Your task to perform on an android device: change text size in settings app Image 0: 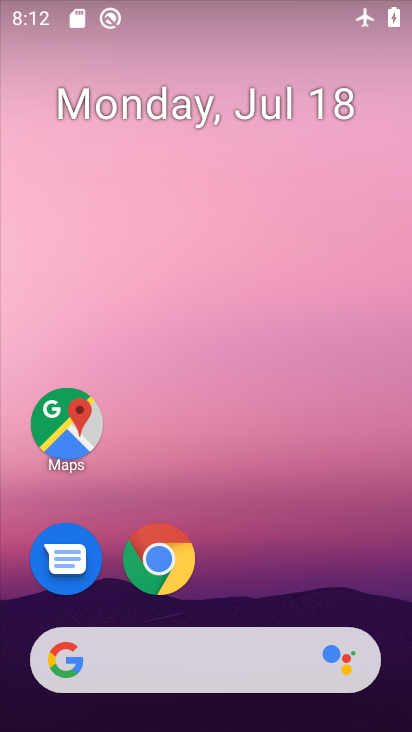
Step 0: drag from (296, 616) to (324, 129)
Your task to perform on an android device: change text size in settings app Image 1: 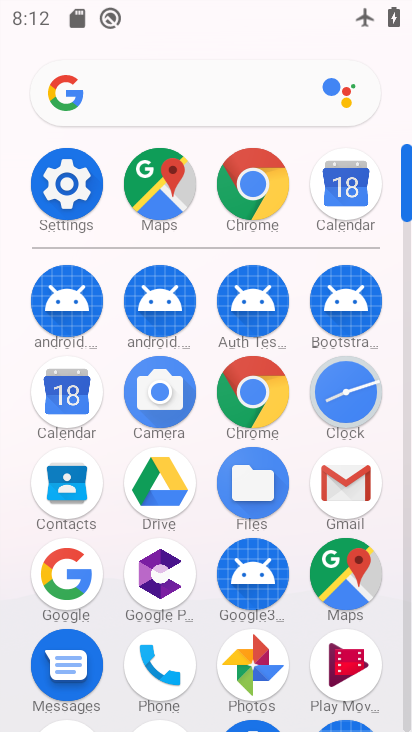
Step 1: click (77, 181)
Your task to perform on an android device: change text size in settings app Image 2: 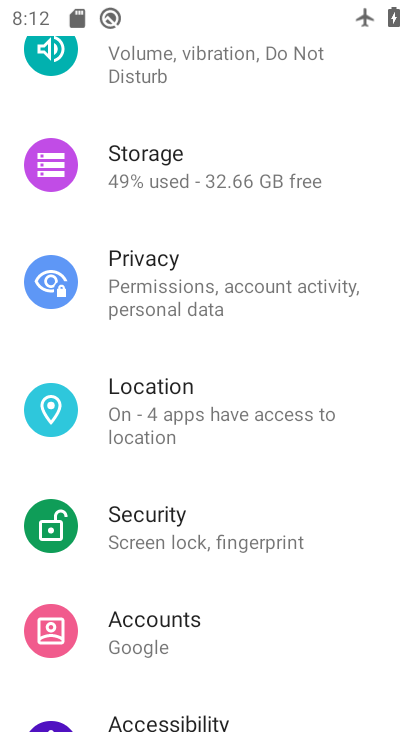
Step 2: drag from (330, 520) to (340, 416)
Your task to perform on an android device: change text size in settings app Image 3: 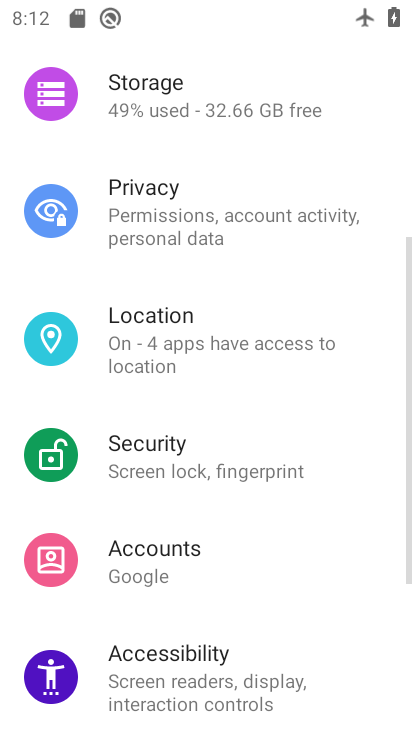
Step 3: drag from (323, 542) to (324, 411)
Your task to perform on an android device: change text size in settings app Image 4: 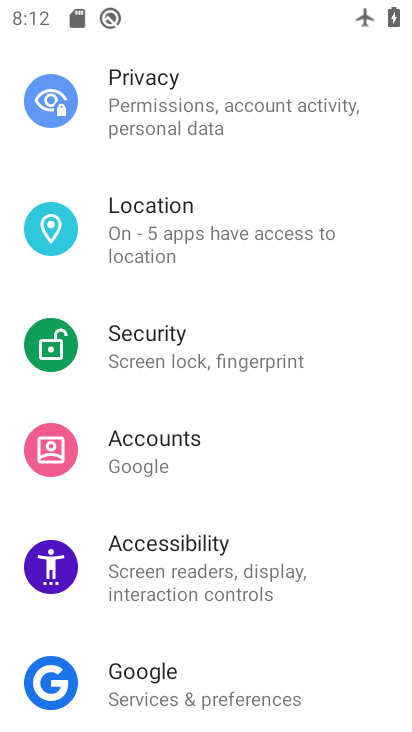
Step 4: drag from (334, 554) to (347, 431)
Your task to perform on an android device: change text size in settings app Image 5: 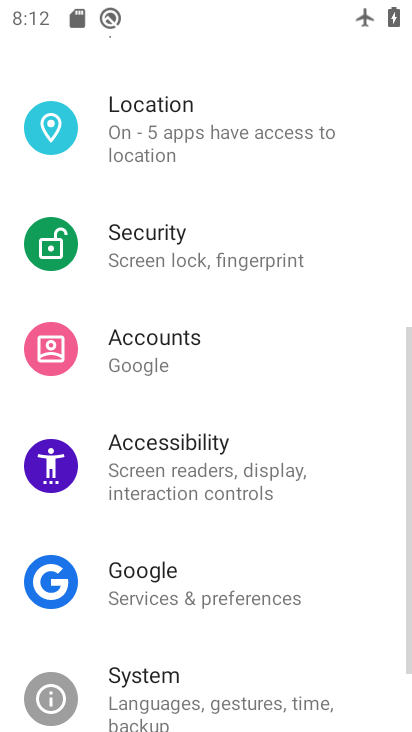
Step 5: drag from (356, 587) to (358, 416)
Your task to perform on an android device: change text size in settings app Image 6: 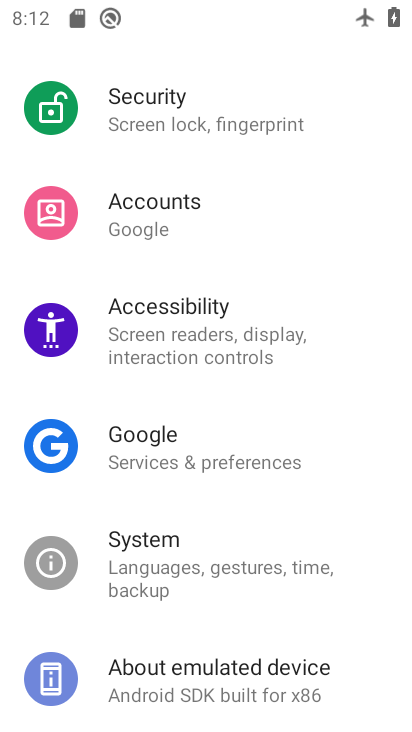
Step 6: drag from (367, 311) to (361, 431)
Your task to perform on an android device: change text size in settings app Image 7: 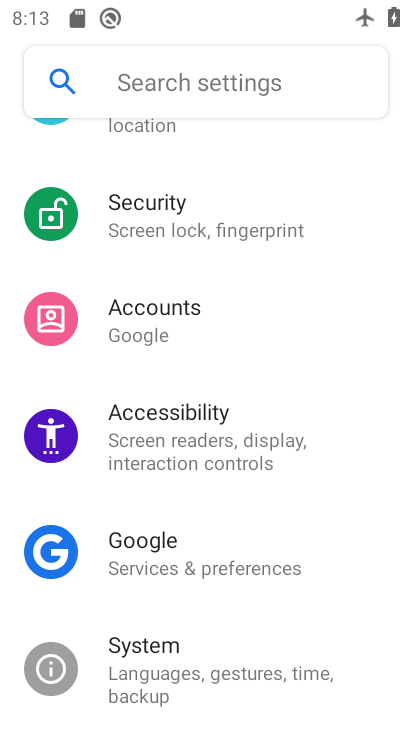
Step 7: drag from (345, 249) to (366, 363)
Your task to perform on an android device: change text size in settings app Image 8: 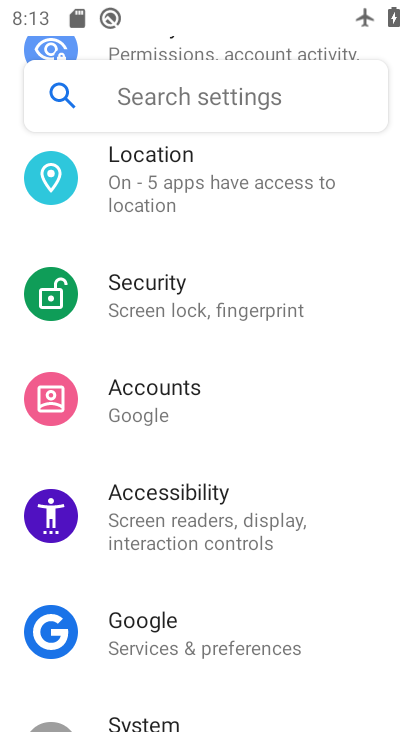
Step 8: drag from (363, 279) to (373, 390)
Your task to perform on an android device: change text size in settings app Image 9: 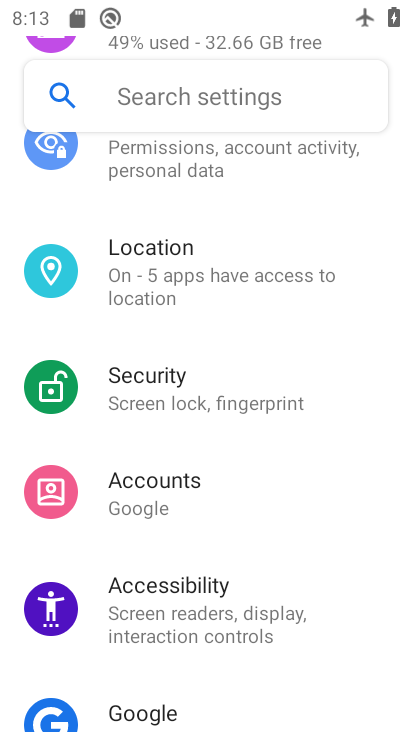
Step 9: drag from (371, 298) to (371, 385)
Your task to perform on an android device: change text size in settings app Image 10: 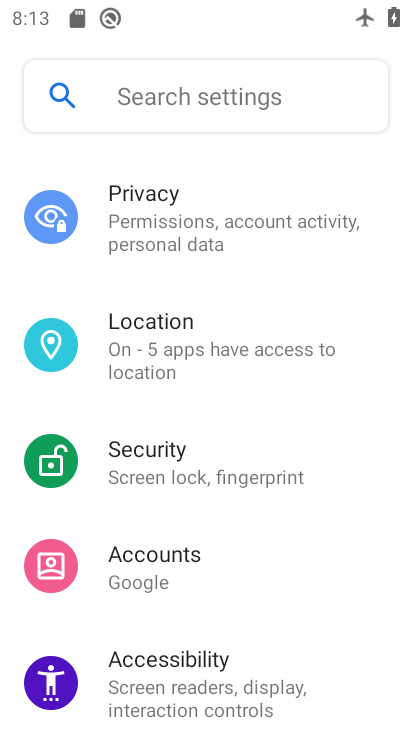
Step 10: drag from (361, 298) to (358, 385)
Your task to perform on an android device: change text size in settings app Image 11: 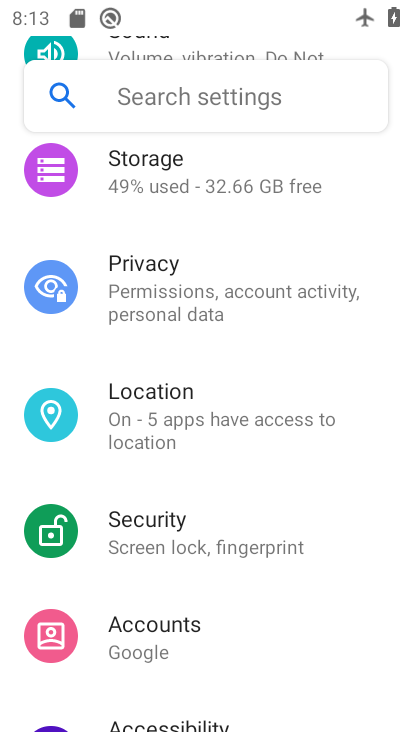
Step 11: drag from (371, 289) to (365, 381)
Your task to perform on an android device: change text size in settings app Image 12: 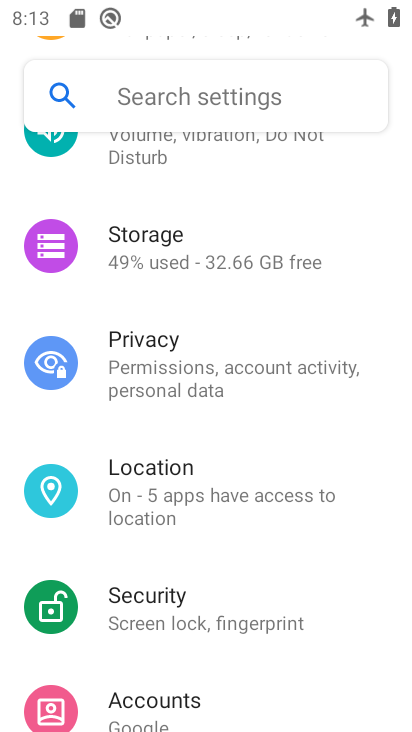
Step 12: drag from (367, 303) to (362, 414)
Your task to perform on an android device: change text size in settings app Image 13: 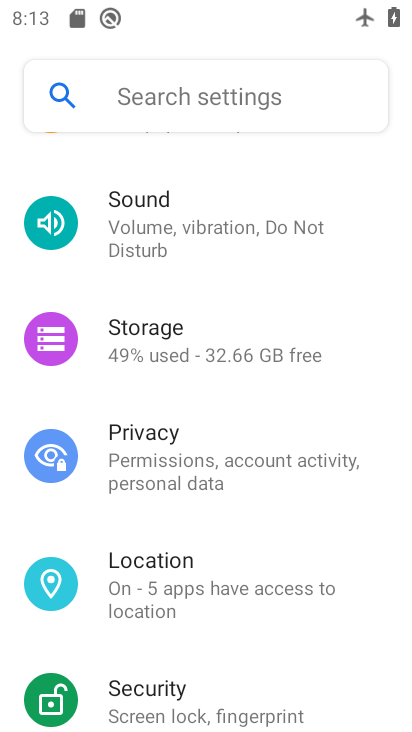
Step 13: drag from (373, 326) to (376, 430)
Your task to perform on an android device: change text size in settings app Image 14: 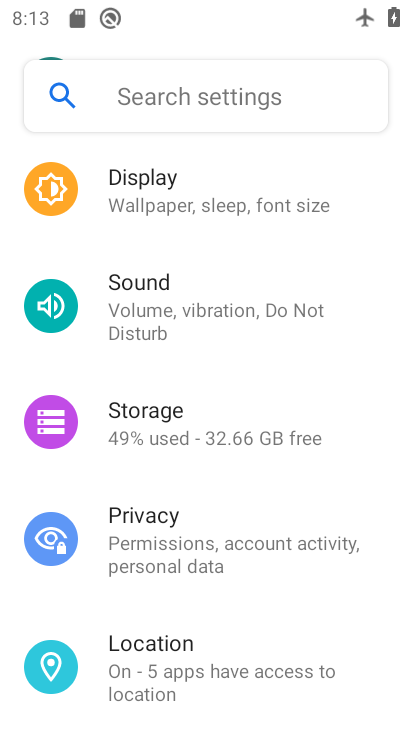
Step 14: drag from (361, 322) to (367, 403)
Your task to perform on an android device: change text size in settings app Image 15: 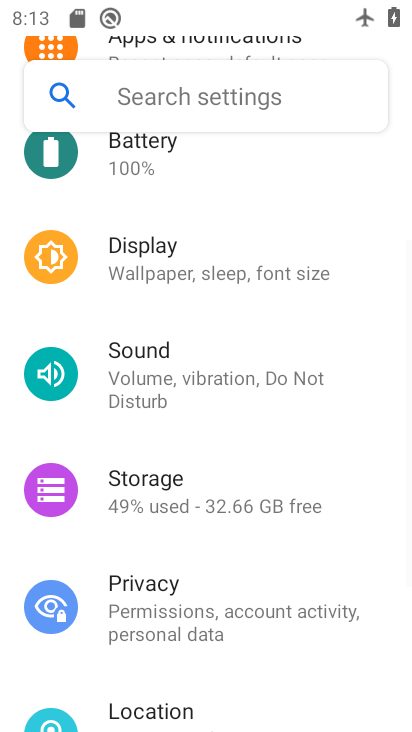
Step 15: drag from (359, 316) to (360, 391)
Your task to perform on an android device: change text size in settings app Image 16: 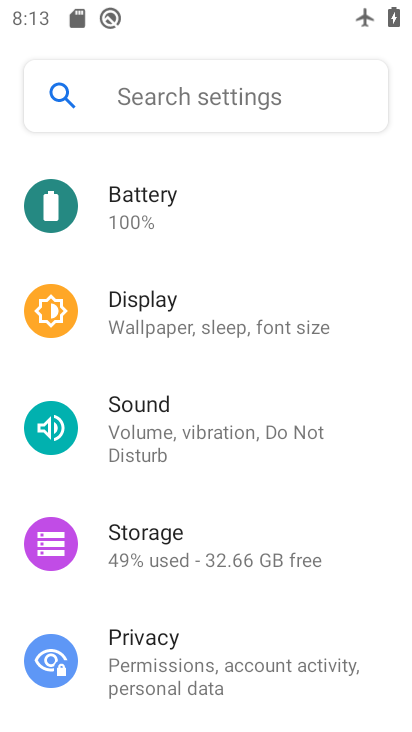
Step 16: click (338, 328)
Your task to perform on an android device: change text size in settings app Image 17: 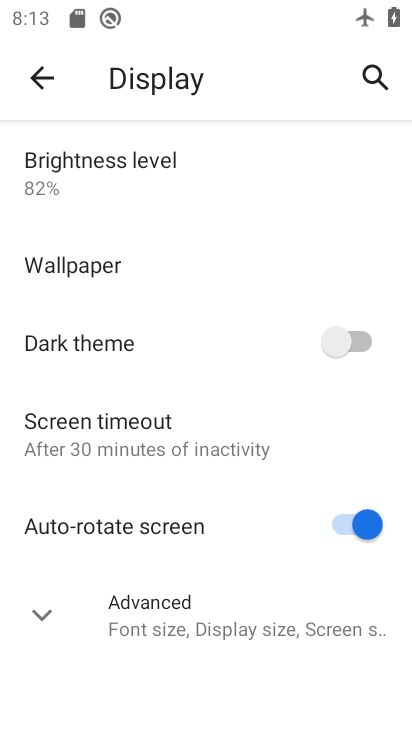
Step 17: click (250, 611)
Your task to perform on an android device: change text size in settings app Image 18: 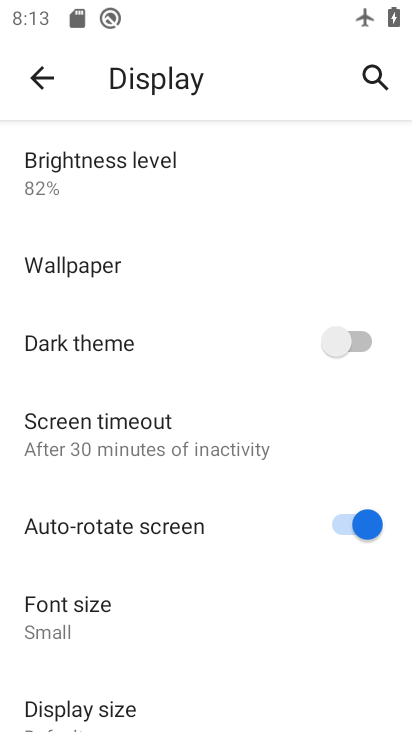
Step 18: drag from (256, 582) to (264, 518)
Your task to perform on an android device: change text size in settings app Image 19: 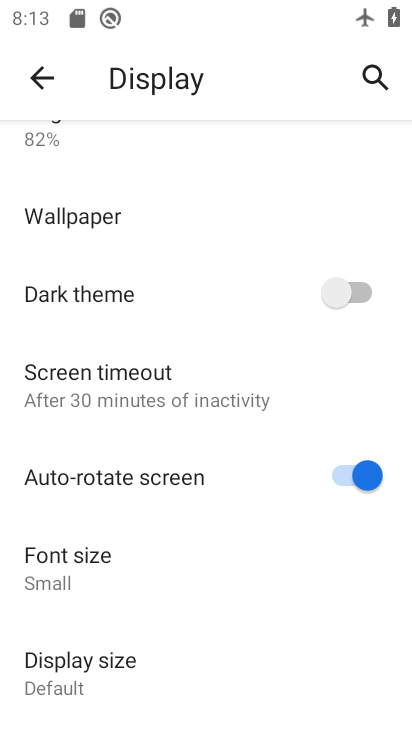
Step 19: click (223, 567)
Your task to perform on an android device: change text size in settings app Image 20: 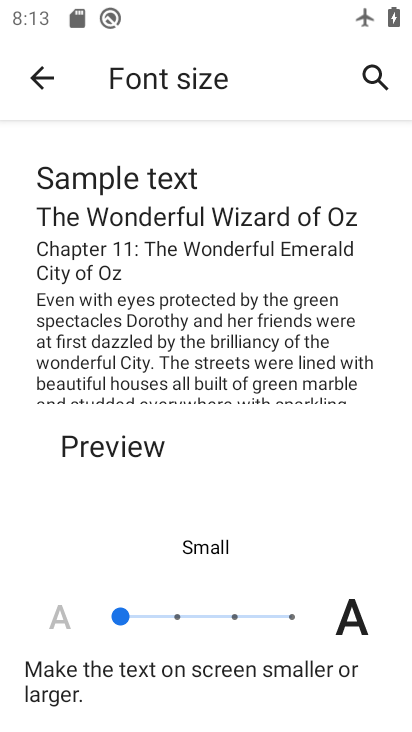
Step 20: click (234, 615)
Your task to perform on an android device: change text size in settings app Image 21: 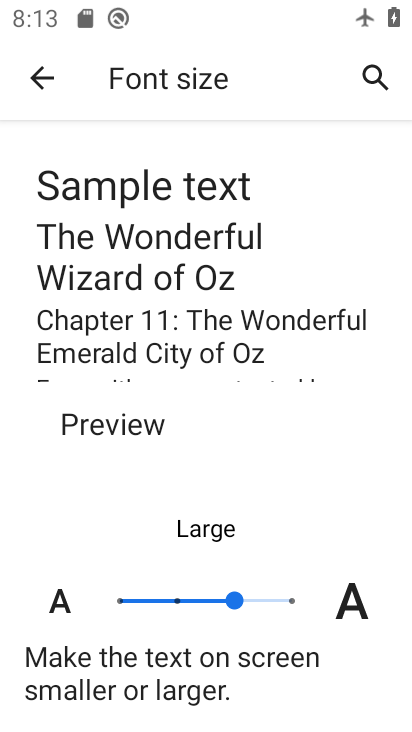
Step 21: task complete